Your task to perform on an android device: open the mobile data screen to see how much data has been used Image 0: 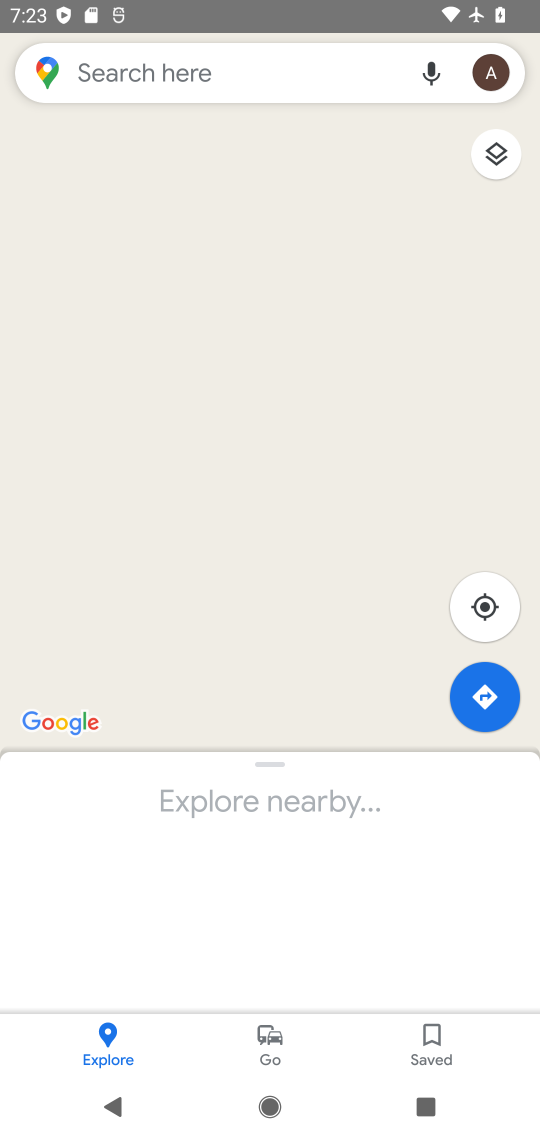
Step 0: press home button
Your task to perform on an android device: open the mobile data screen to see how much data has been used Image 1: 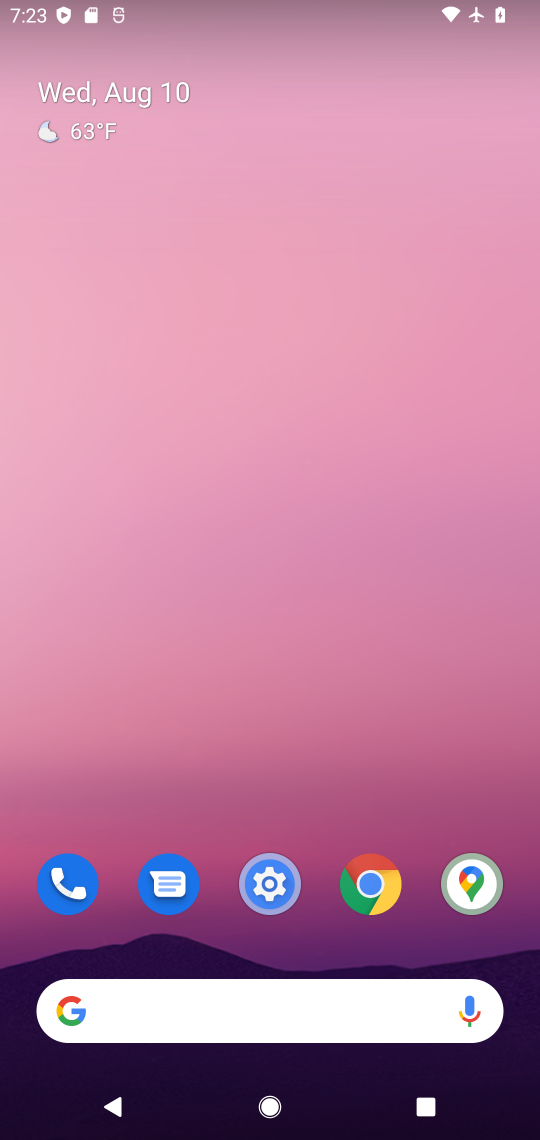
Step 1: click (260, 884)
Your task to perform on an android device: open the mobile data screen to see how much data has been used Image 2: 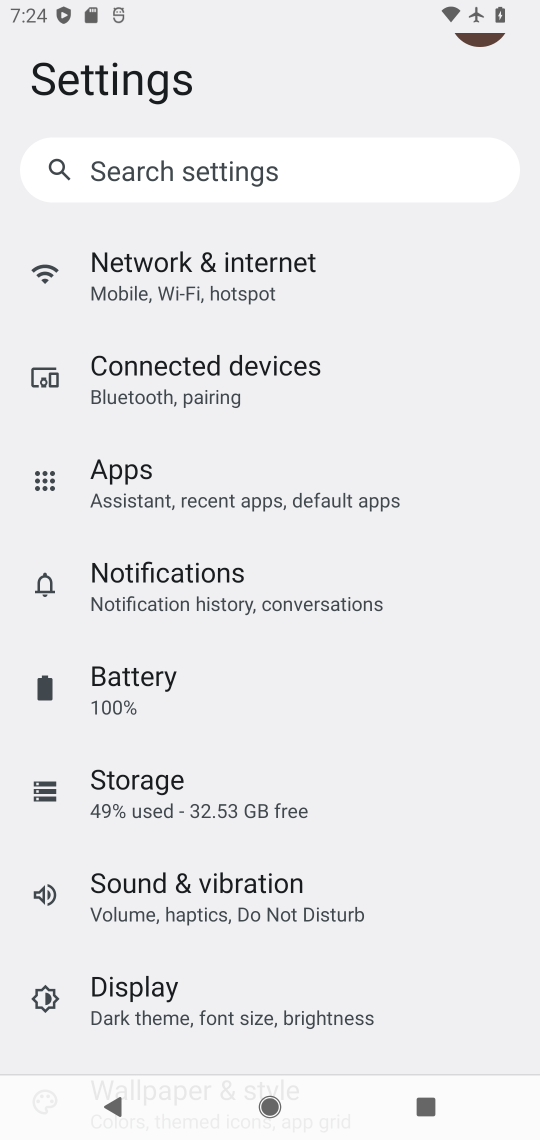
Step 2: click (190, 267)
Your task to perform on an android device: open the mobile data screen to see how much data has been used Image 3: 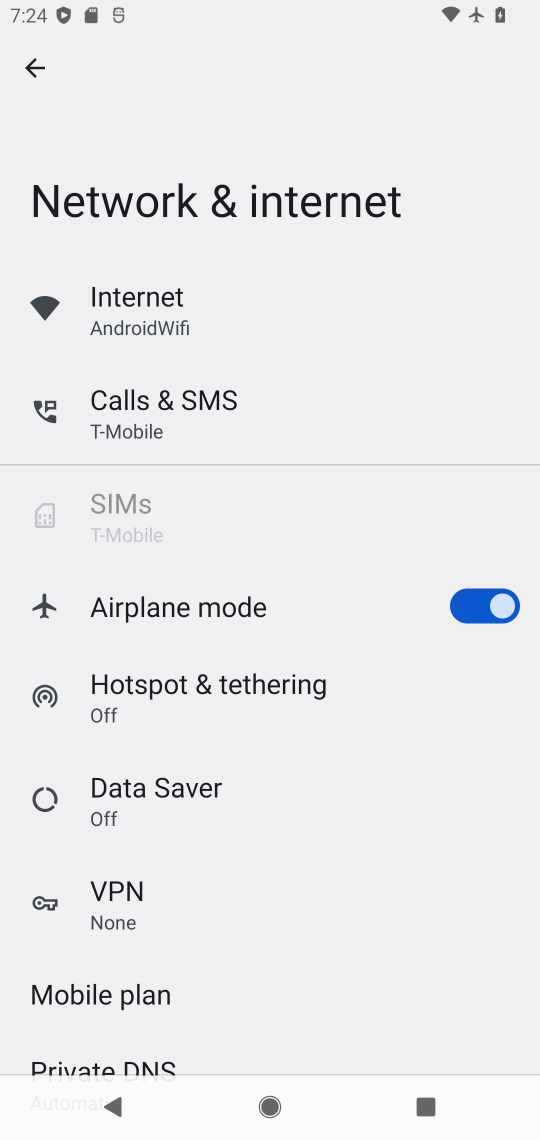
Step 3: drag from (319, 899) to (266, 273)
Your task to perform on an android device: open the mobile data screen to see how much data has been used Image 4: 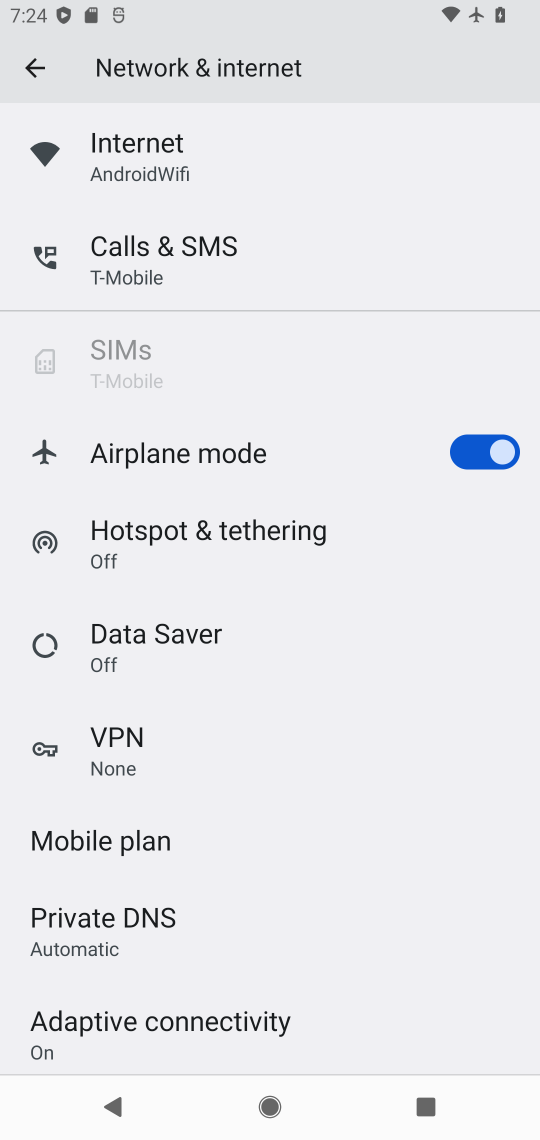
Step 4: click (139, 147)
Your task to perform on an android device: open the mobile data screen to see how much data has been used Image 5: 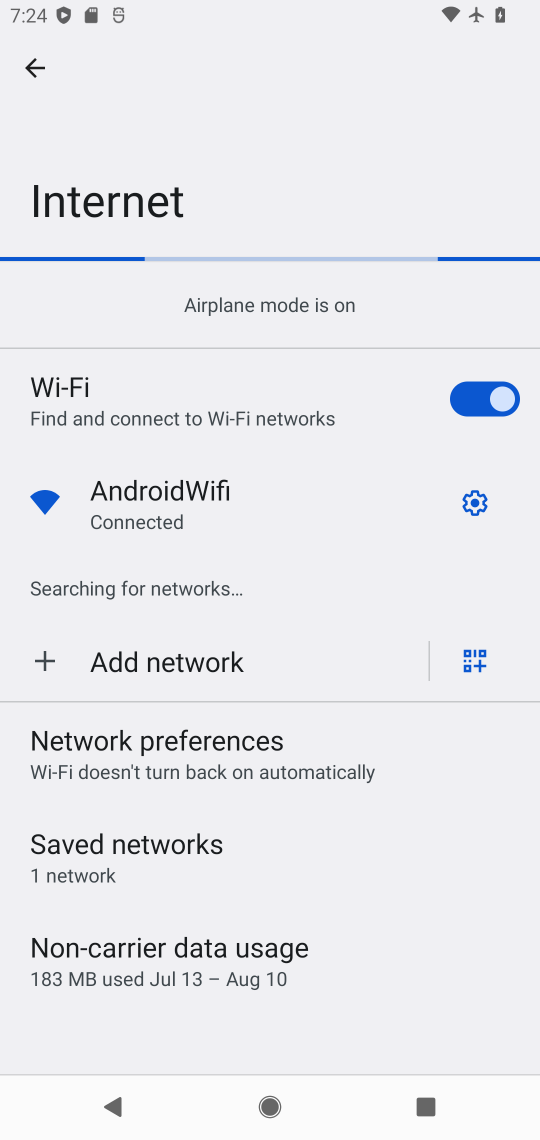
Step 5: click (229, 933)
Your task to perform on an android device: open the mobile data screen to see how much data has been used Image 6: 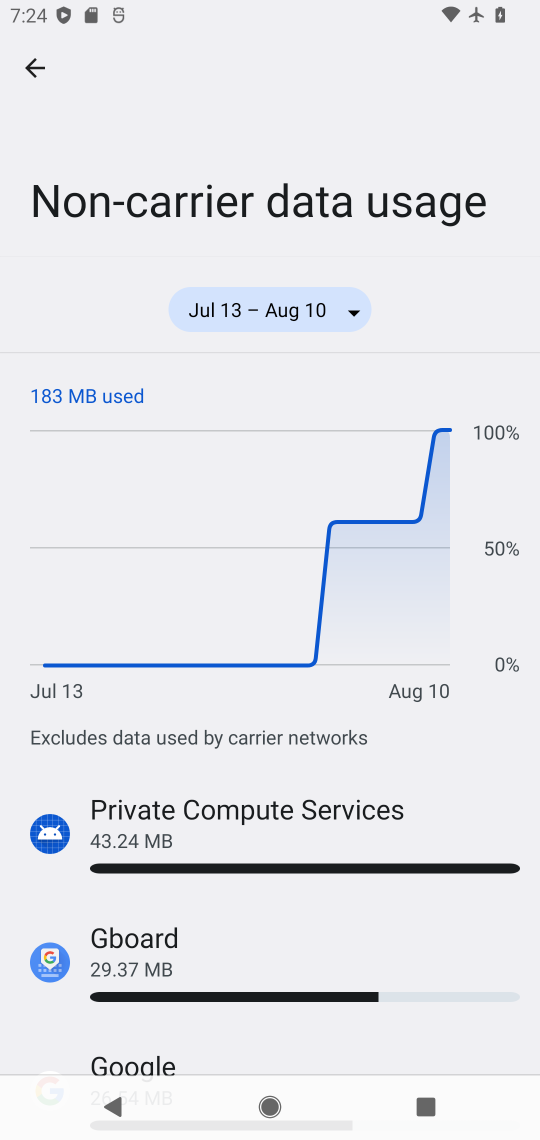
Step 6: task complete